Your task to perform on an android device: Go to ESPN.com Image 0: 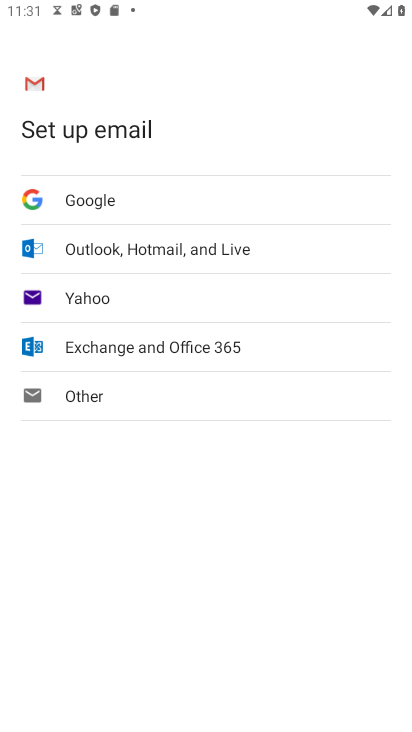
Step 0: press home button
Your task to perform on an android device: Go to ESPN.com Image 1: 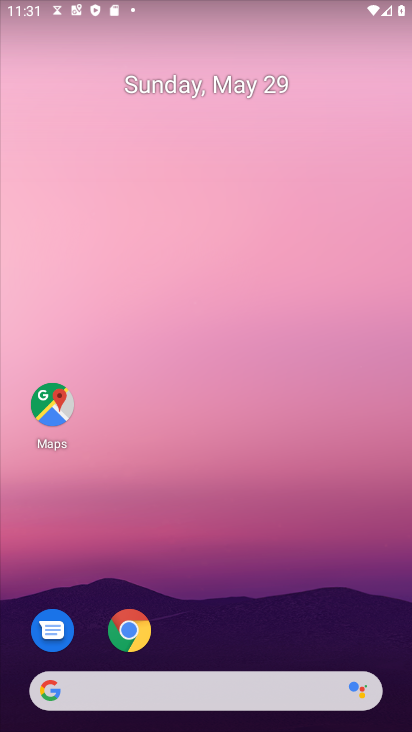
Step 1: click (108, 625)
Your task to perform on an android device: Go to ESPN.com Image 2: 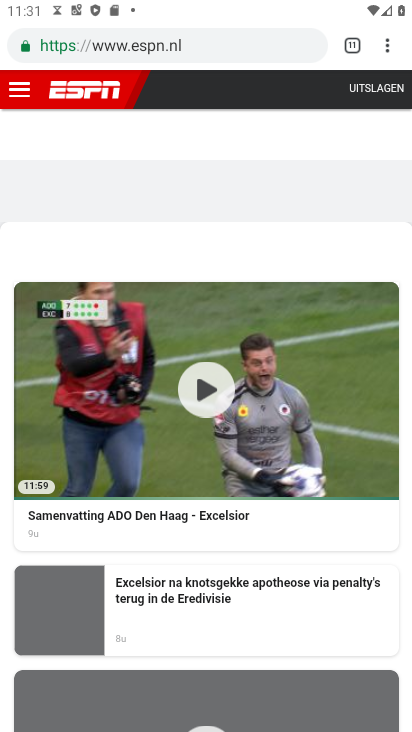
Step 2: task complete